Your task to perform on an android device: move a message to another label in the gmail app Image 0: 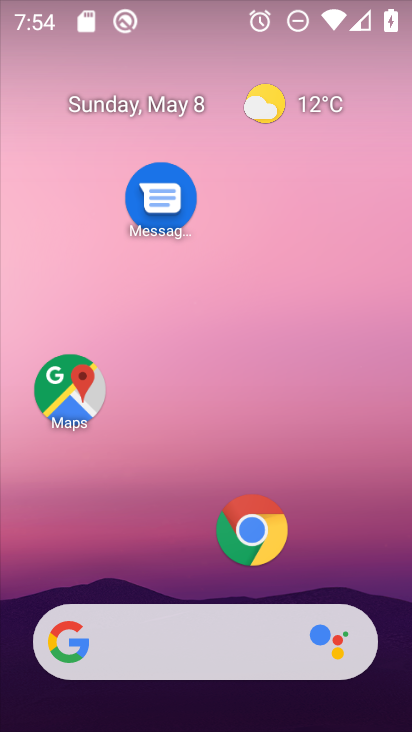
Step 0: press home button
Your task to perform on an android device: move a message to another label in the gmail app Image 1: 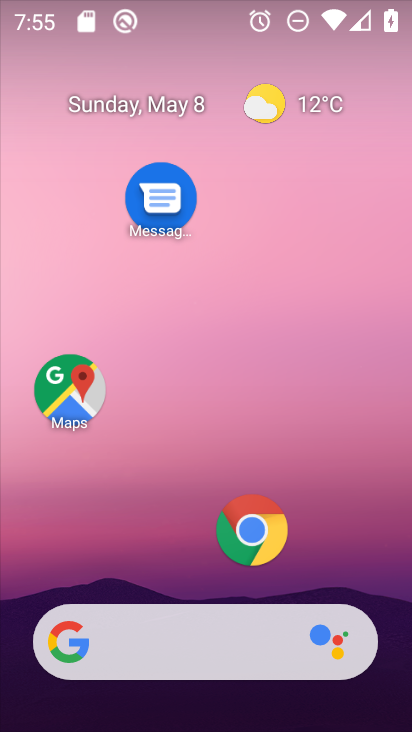
Step 1: drag from (200, 571) to (244, 344)
Your task to perform on an android device: move a message to another label in the gmail app Image 2: 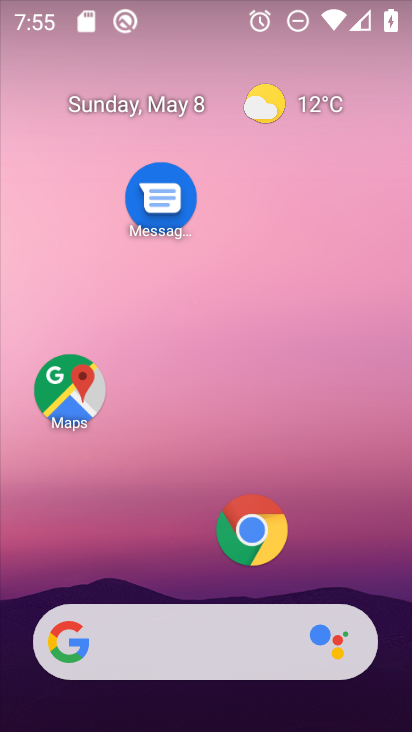
Step 2: drag from (188, 525) to (252, 83)
Your task to perform on an android device: move a message to another label in the gmail app Image 3: 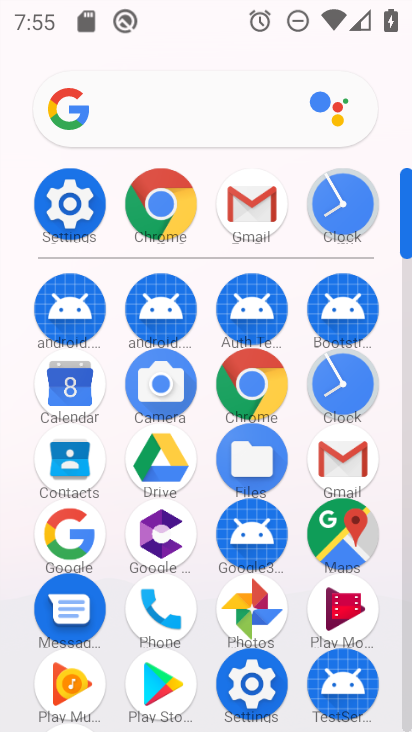
Step 3: click (248, 199)
Your task to perform on an android device: move a message to another label in the gmail app Image 4: 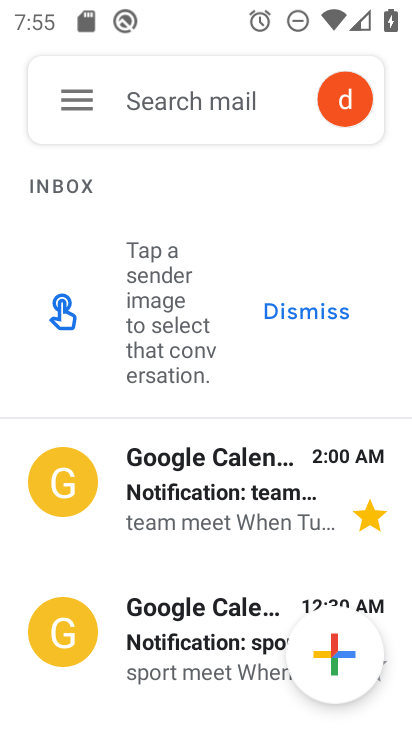
Step 4: click (70, 488)
Your task to perform on an android device: move a message to another label in the gmail app Image 5: 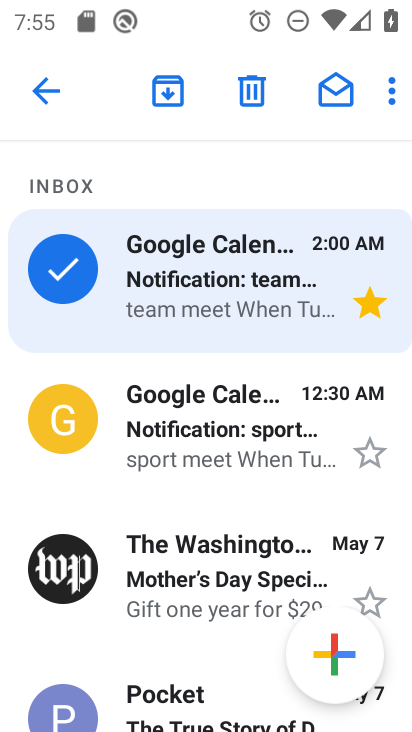
Step 5: click (382, 91)
Your task to perform on an android device: move a message to another label in the gmail app Image 6: 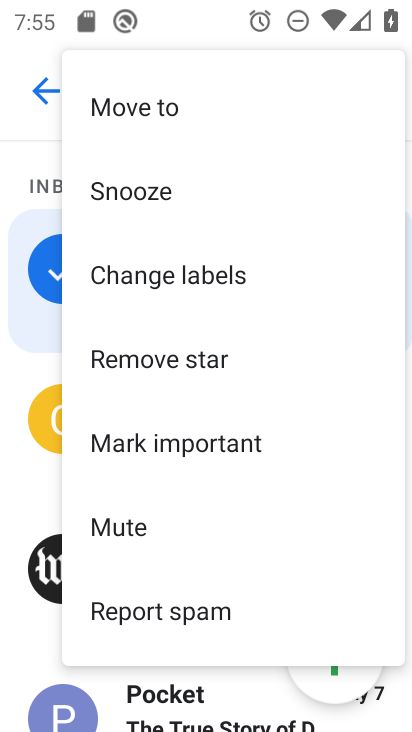
Step 6: click (184, 109)
Your task to perform on an android device: move a message to another label in the gmail app Image 7: 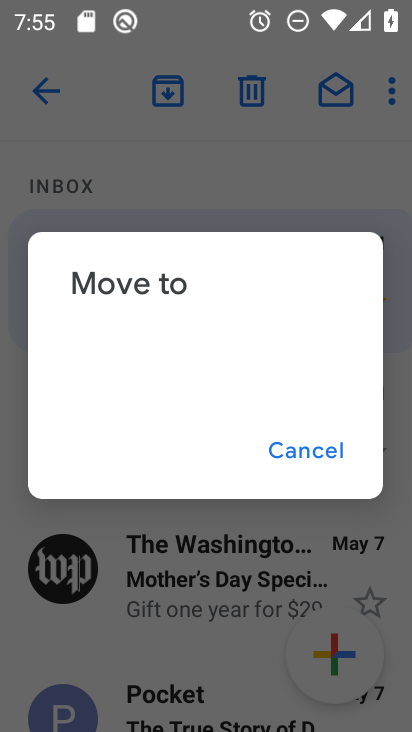
Step 7: click (101, 352)
Your task to perform on an android device: move a message to another label in the gmail app Image 8: 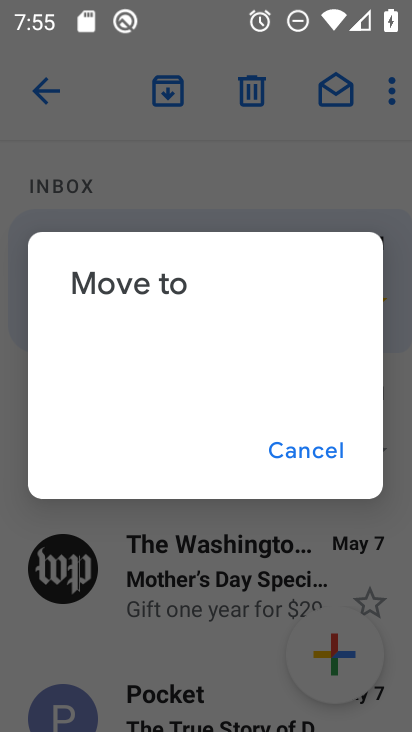
Step 8: click (102, 353)
Your task to perform on an android device: move a message to another label in the gmail app Image 9: 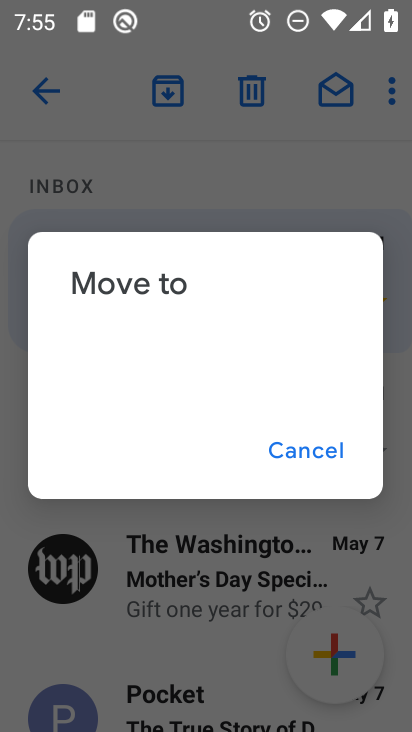
Step 9: click (152, 358)
Your task to perform on an android device: move a message to another label in the gmail app Image 10: 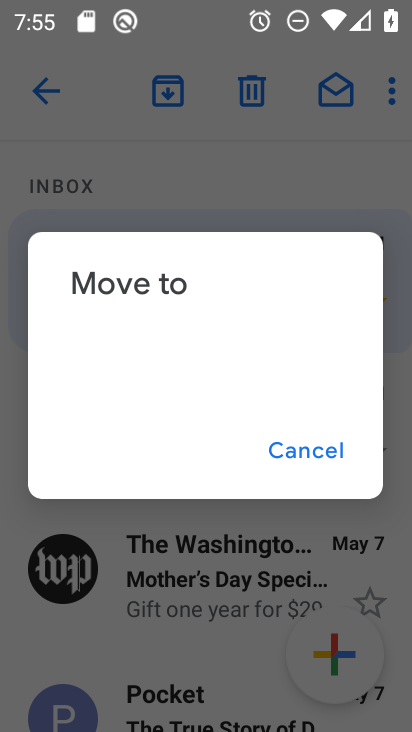
Step 10: click (172, 384)
Your task to perform on an android device: move a message to another label in the gmail app Image 11: 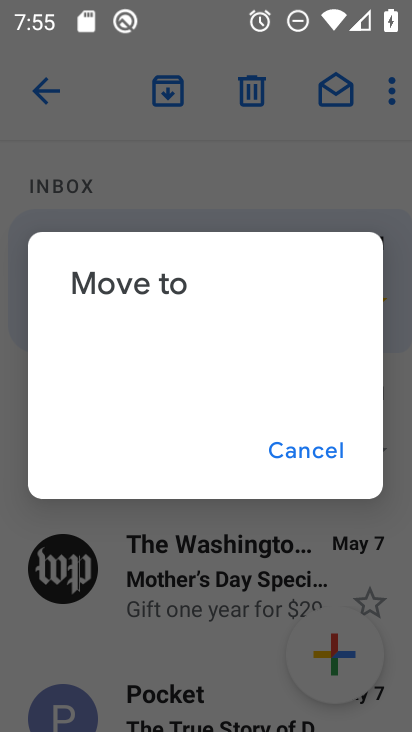
Step 11: task complete